Your task to perform on an android device: turn off picture-in-picture Image 0: 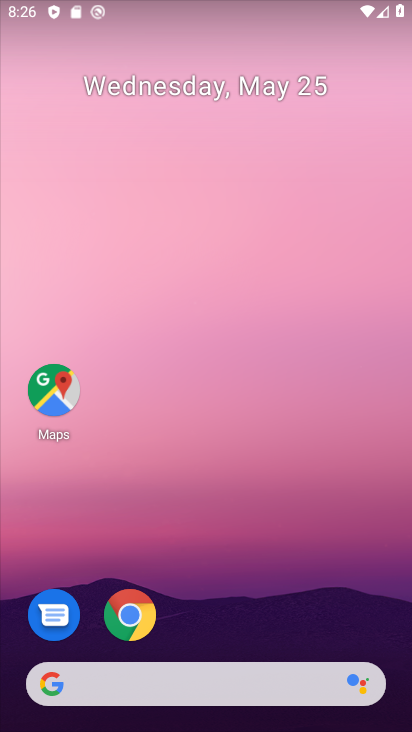
Step 0: click (119, 623)
Your task to perform on an android device: turn off picture-in-picture Image 1: 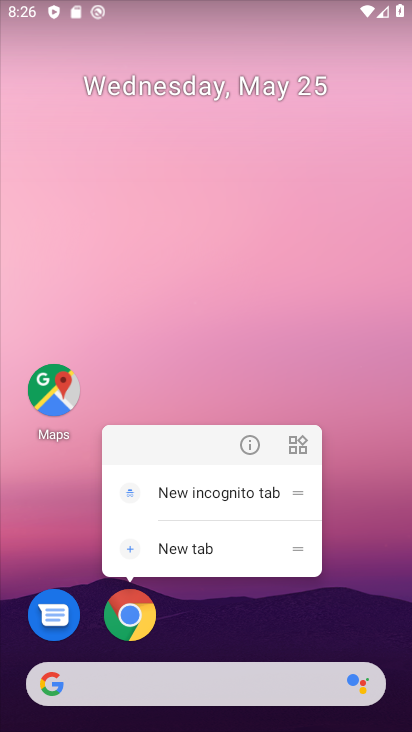
Step 1: click (253, 444)
Your task to perform on an android device: turn off picture-in-picture Image 2: 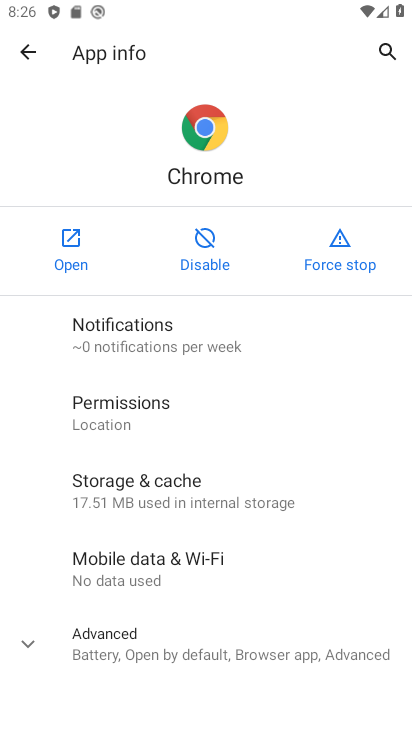
Step 2: click (242, 637)
Your task to perform on an android device: turn off picture-in-picture Image 3: 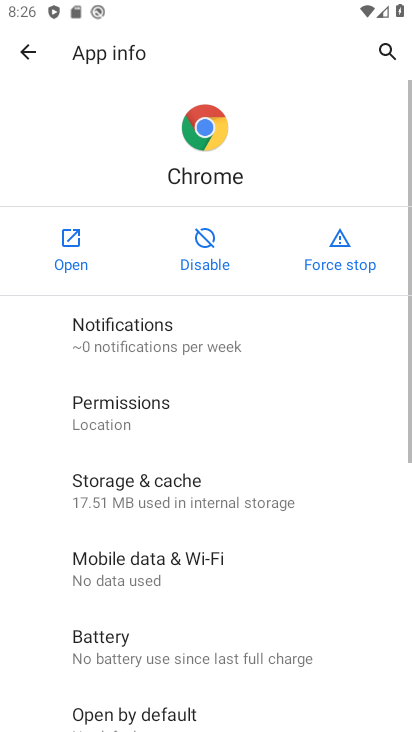
Step 3: drag from (225, 616) to (275, 20)
Your task to perform on an android device: turn off picture-in-picture Image 4: 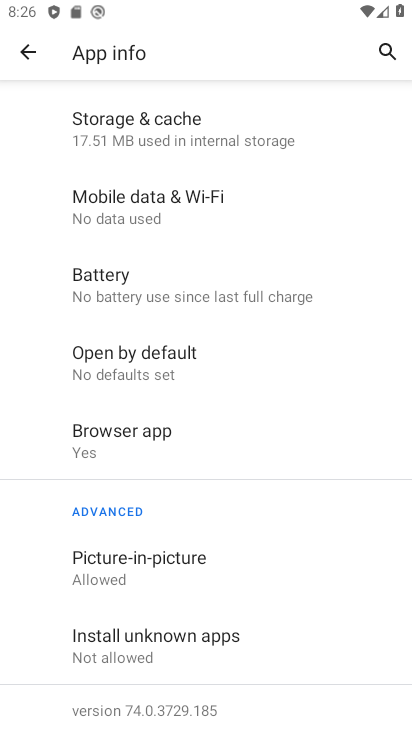
Step 4: click (149, 561)
Your task to perform on an android device: turn off picture-in-picture Image 5: 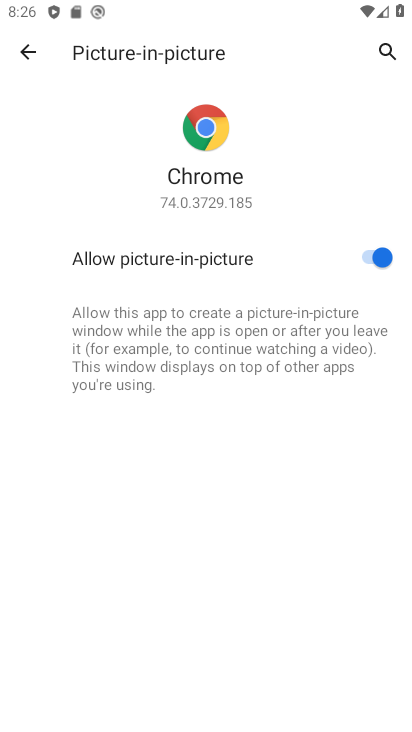
Step 5: click (357, 260)
Your task to perform on an android device: turn off picture-in-picture Image 6: 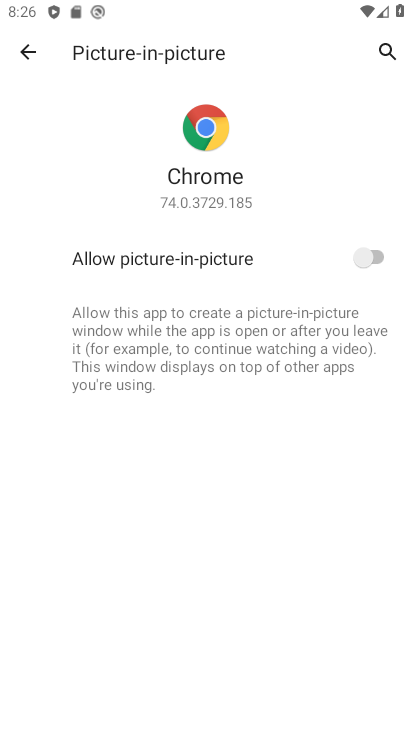
Step 6: task complete